Your task to perform on an android device: all mails in gmail Image 0: 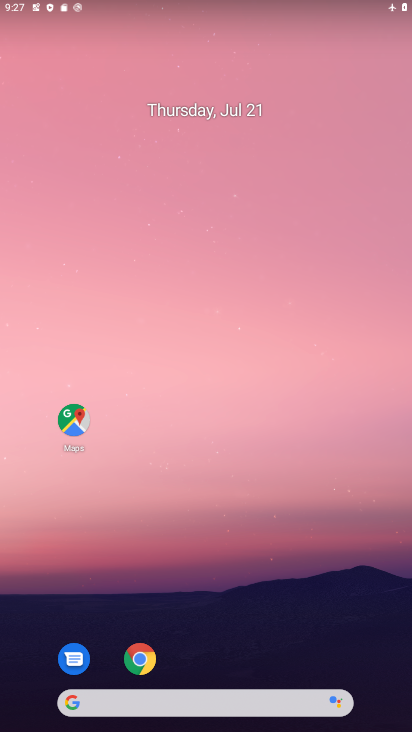
Step 0: drag from (207, 678) to (207, 213)
Your task to perform on an android device: all mails in gmail Image 1: 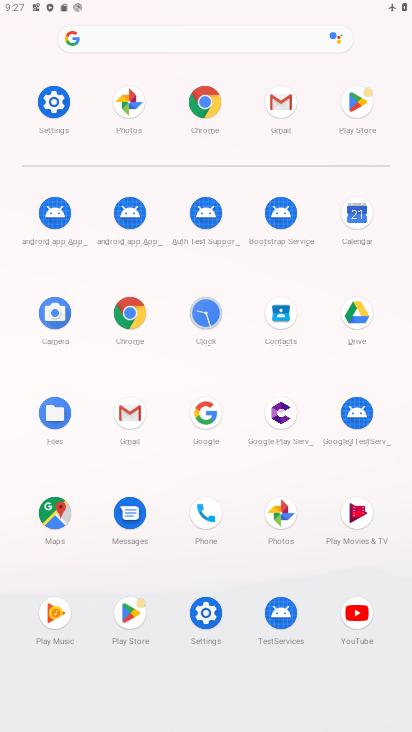
Step 1: click (120, 415)
Your task to perform on an android device: all mails in gmail Image 2: 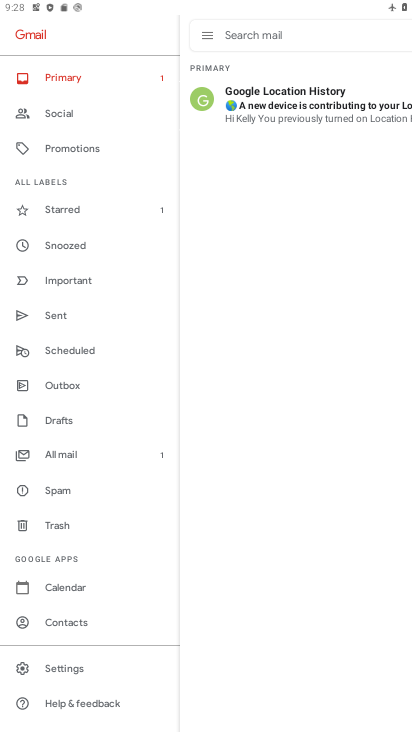
Step 2: click (56, 455)
Your task to perform on an android device: all mails in gmail Image 3: 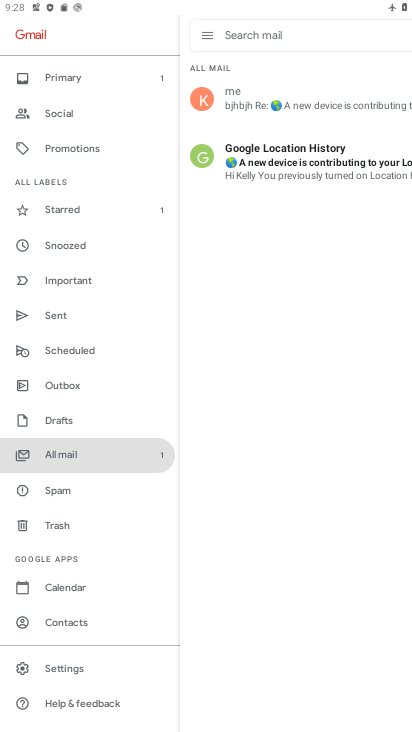
Step 3: task complete